Your task to perform on an android device: Go to Google maps Image 0: 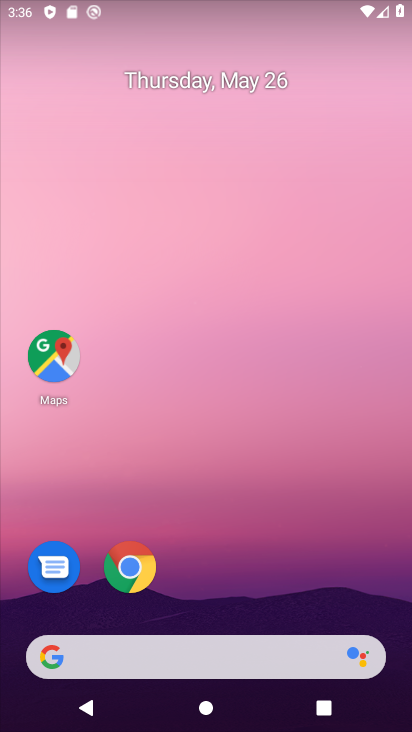
Step 0: click (46, 355)
Your task to perform on an android device: Go to Google maps Image 1: 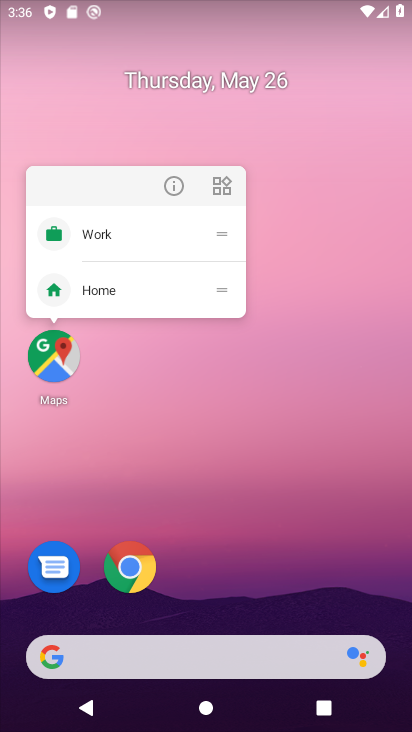
Step 1: click (49, 356)
Your task to perform on an android device: Go to Google maps Image 2: 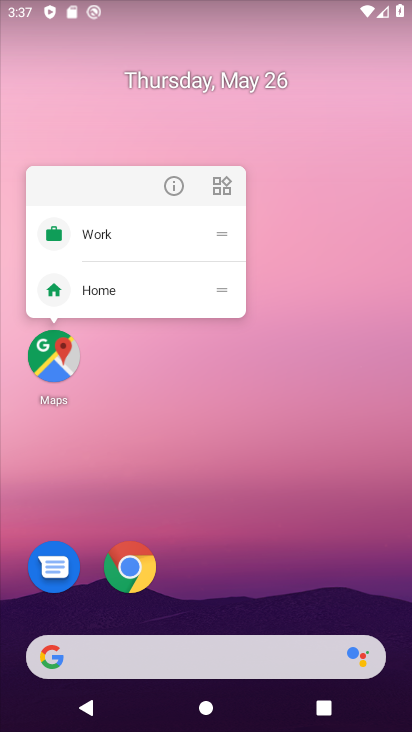
Step 2: click (62, 362)
Your task to perform on an android device: Go to Google maps Image 3: 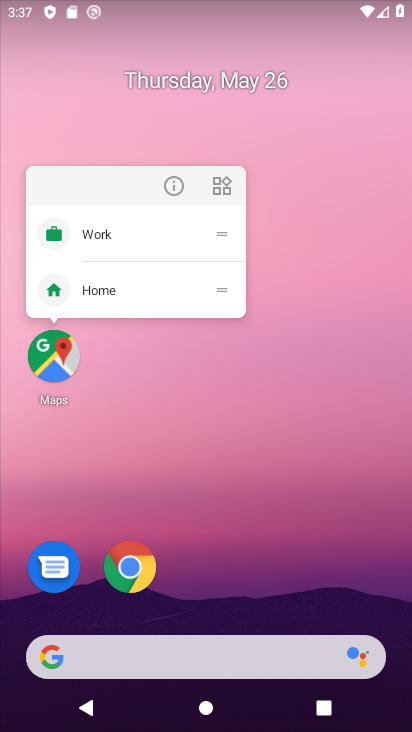
Step 3: click (66, 367)
Your task to perform on an android device: Go to Google maps Image 4: 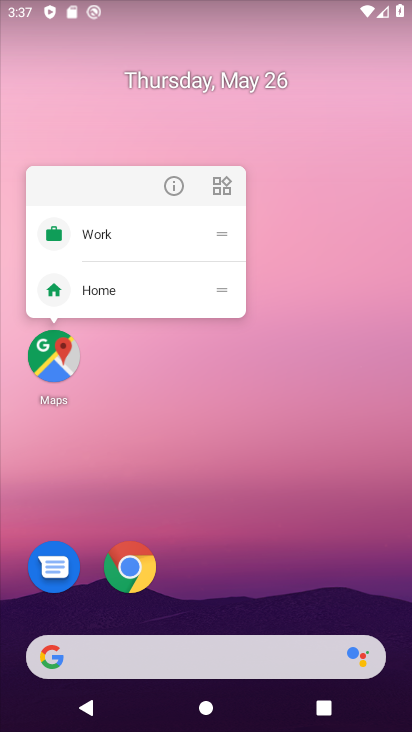
Step 4: click (65, 366)
Your task to perform on an android device: Go to Google maps Image 5: 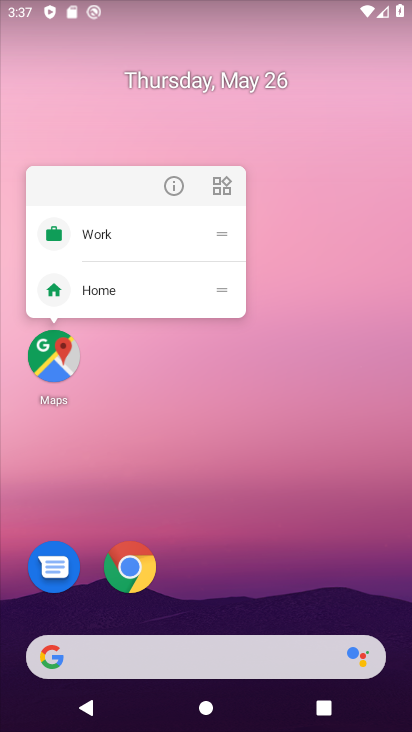
Step 5: click (57, 362)
Your task to perform on an android device: Go to Google maps Image 6: 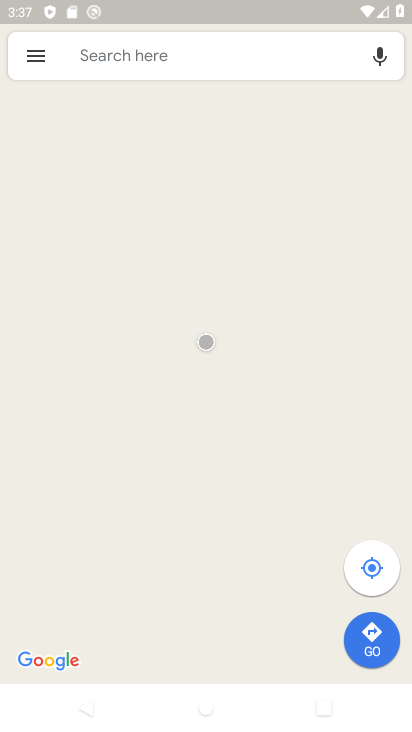
Step 6: task complete